Your task to perform on an android device: Open Reddit.com Image 0: 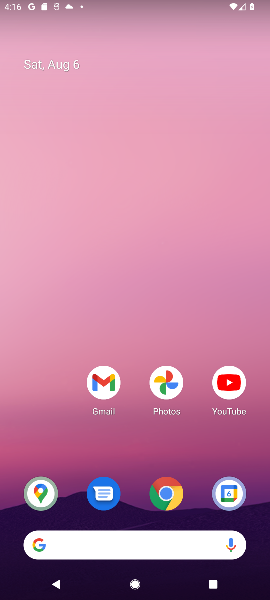
Step 0: drag from (151, 560) to (160, 226)
Your task to perform on an android device: Open Reddit.com Image 1: 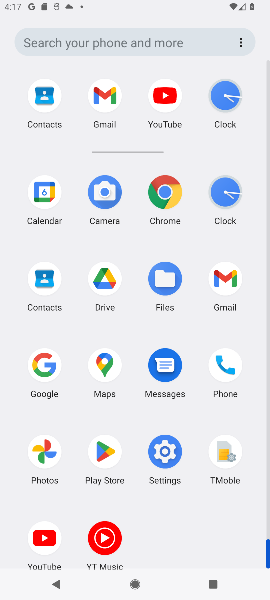
Step 1: drag from (186, 506) to (231, 114)
Your task to perform on an android device: Open Reddit.com Image 2: 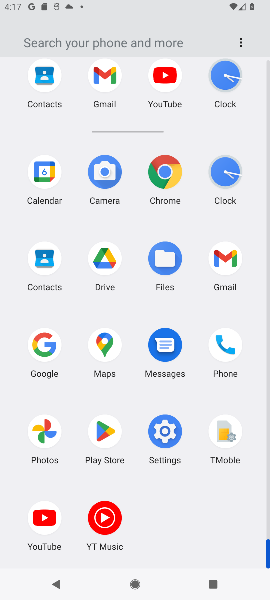
Step 2: click (166, 173)
Your task to perform on an android device: Open Reddit.com Image 3: 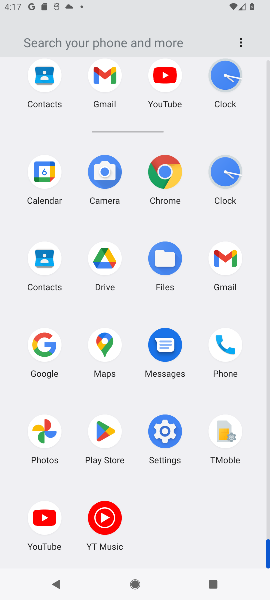
Step 3: click (167, 173)
Your task to perform on an android device: Open Reddit.com Image 4: 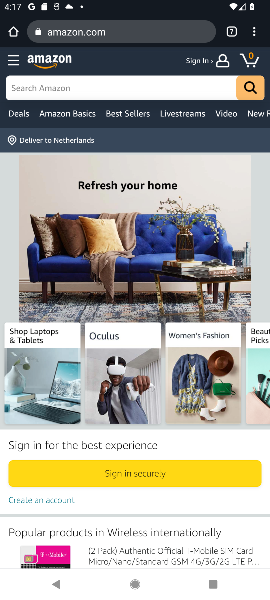
Step 4: drag from (250, 33) to (173, 97)
Your task to perform on an android device: Open Reddit.com Image 5: 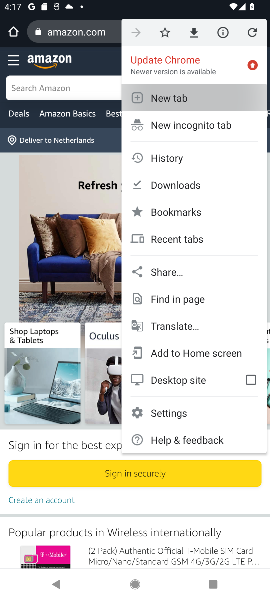
Step 5: click (173, 98)
Your task to perform on an android device: Open Reddit.com Image 6: 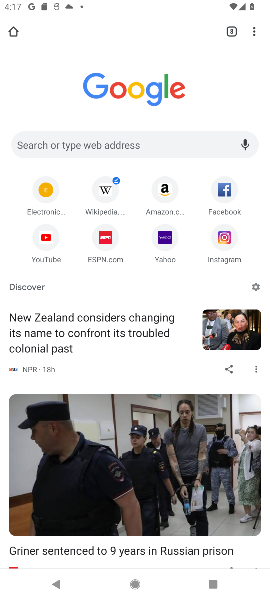
Step 6: click (54, 145)
Your task to perform on an android device: Open Reddit.com Image 7: 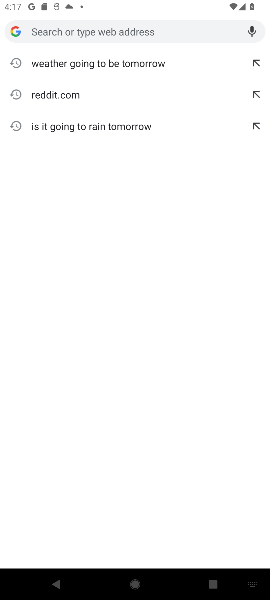
Step 7: click (58, 90)
Your task to perform on an android device: Open Reddit.com Image 8: 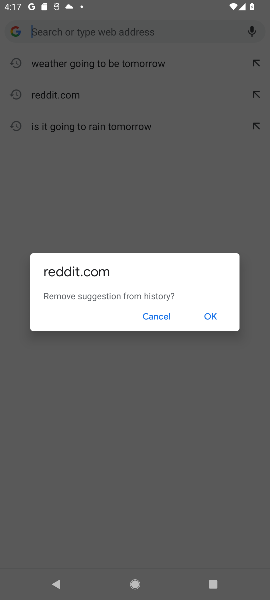
Step 8: click (202, 317)
Your task to perform on an android device: Open Reddit.com Image 9: 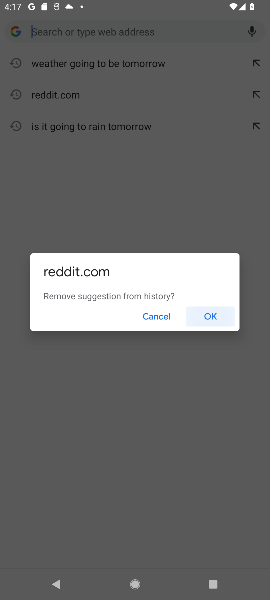
Step 9: click (203, 316)
Your task to perform on an android device: Open Reddit.com Image 10: 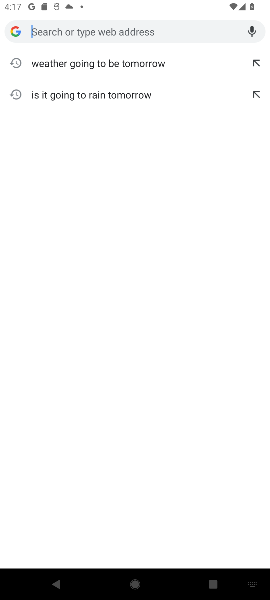
Step 10: click (60, 26)
Your task to perform on an android device: Open Reddit.com Image 11: 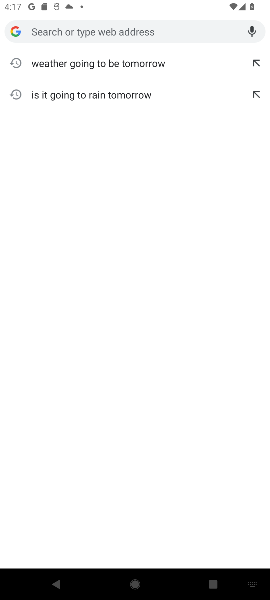
Step 11: click (59, 26)
Your task to perform on an android device: Open Reddit.com Image 12: 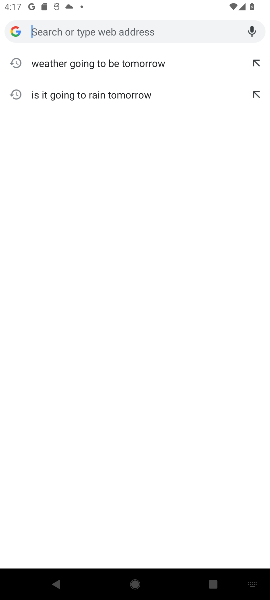
Step 12: type "reddit.com"
Your task to perform on an android device: Open Reddit.com Image 13: 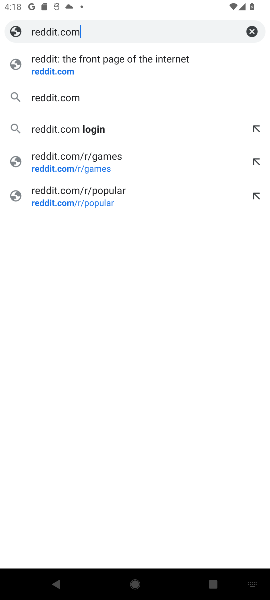
Step 13: click (65, 60)
Your task to perform on an android device: Open Reddit.com Image 14: 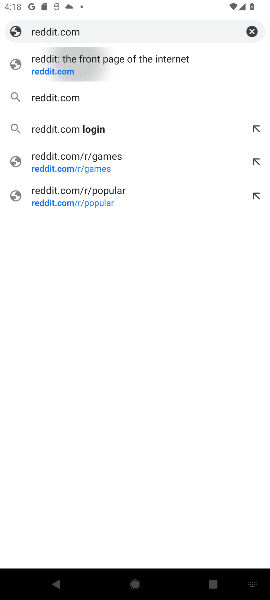
Step 14: click (74, 63)
Your task to perform on an android device: Open Reddit.com Image 15: 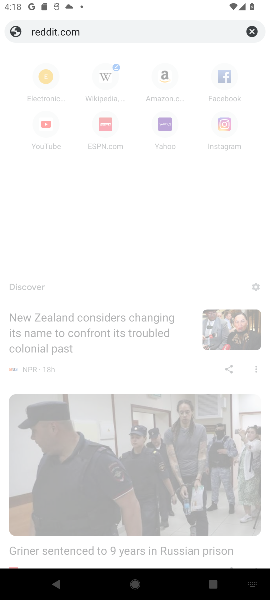
Step 15: click (81, 73)
Your task to perform on an android device: Open Reddit.com Image 16: 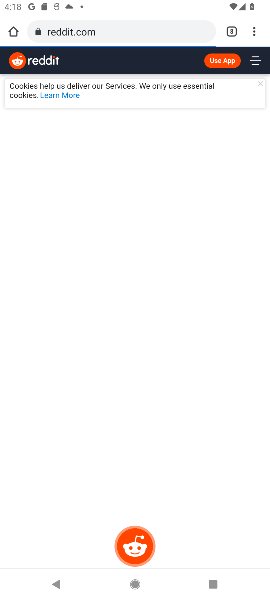
Step 16: task complete